Your task to perform on an android device: turn notification dots on Image 0: 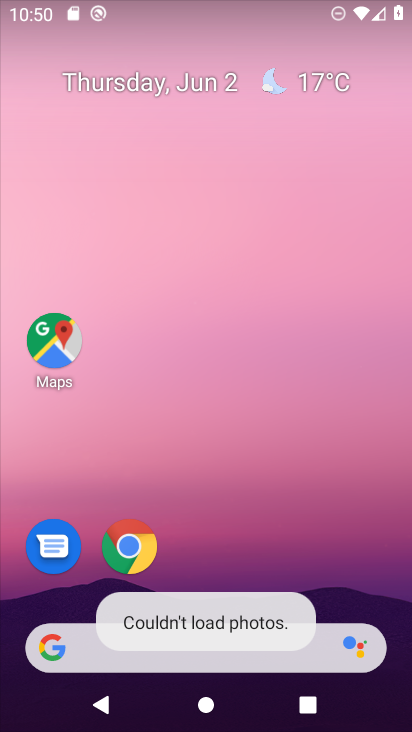
Step 0: drag from (321, 589) to (226, 10)
Your task to perform on an android device: turn notification dots on Image 1: 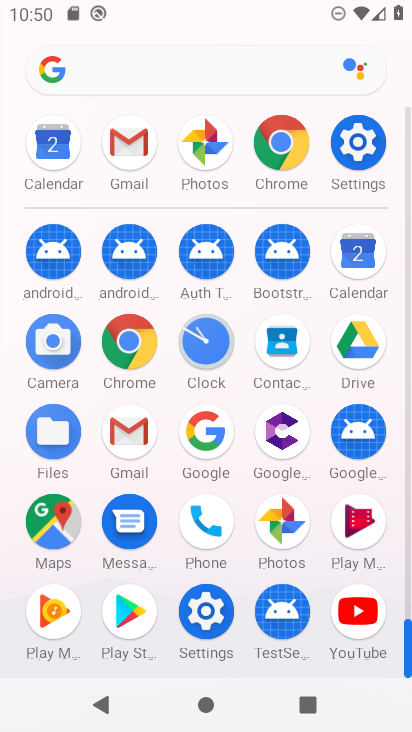
Step 1: drag from (6, 517) to (6, 161)
Your task to perform on an android device: turn notification dots on Image 2: 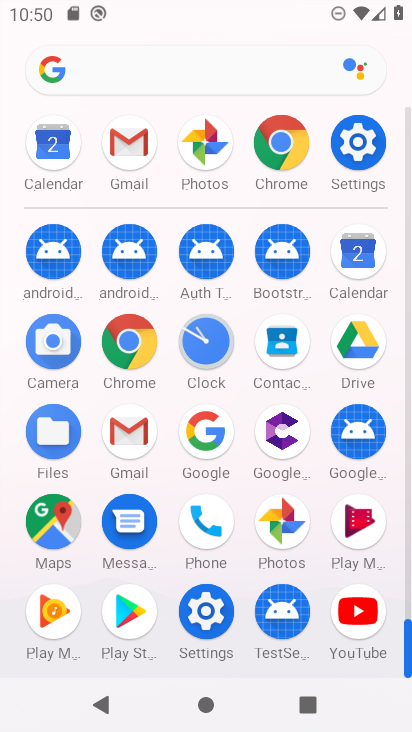
Step 2: click (205, 609)
Your task to perform on an android device: turn notification dots on Image 3: 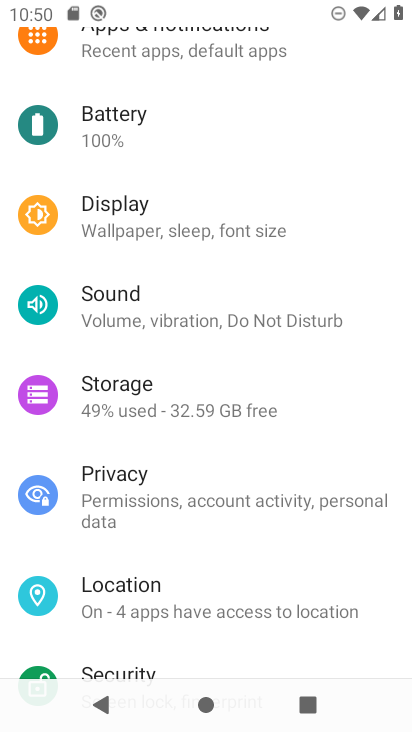
Step 3: drag from (282, 136) to (291, 546)
Your task to perform on an android device: turn notification dots on Image 4: 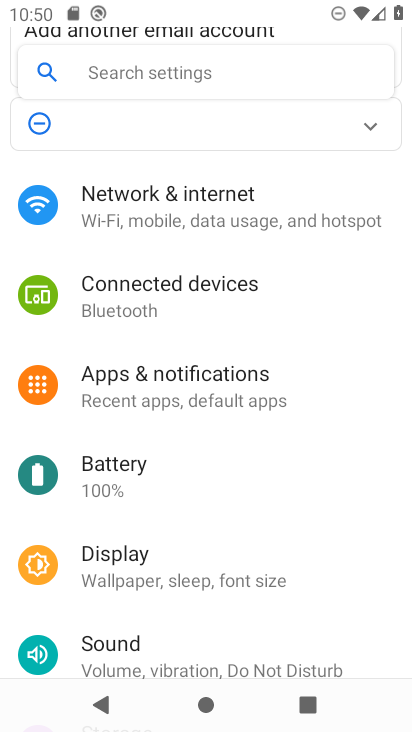
Step 4: click (194, 377)
Your task to perform on an android device: turn notification dots on Image 5: 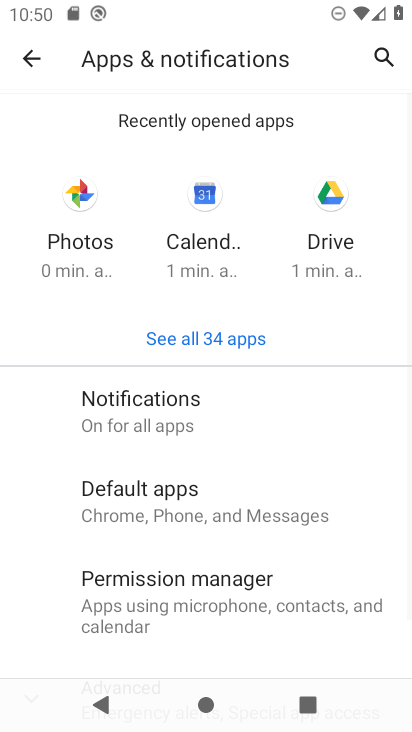
Step 5: drag from (224, 578) to (265, 202)
Your task to perform on an android device: turn notification dots on Image 6: 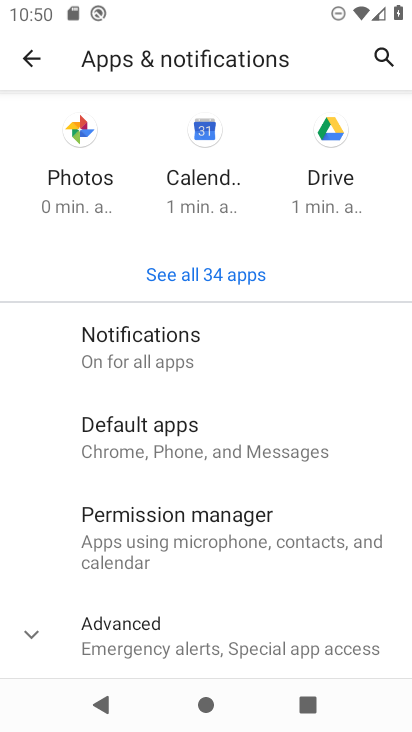
Step 6: click (50, 625)
Your task to perform on an android device: turn notification dots on Image 7: 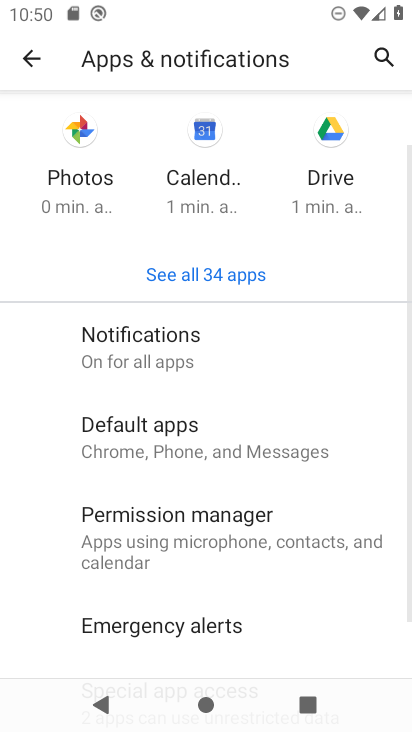
Step 7: click (220, 372)
Your task to perform on an android device: turn notification dots on Image 8: 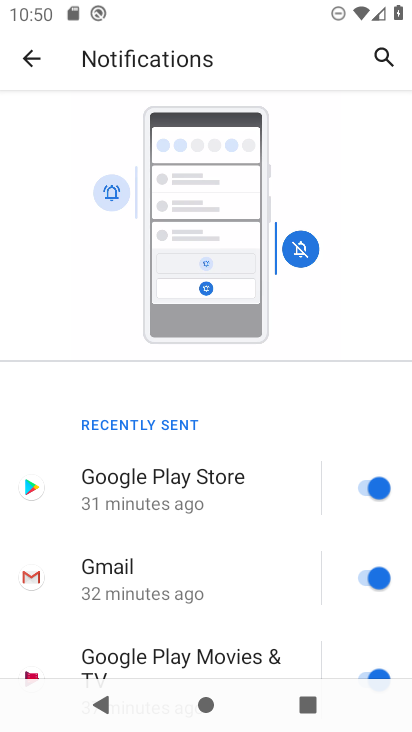
Step 8: drag from (238, 509) to (290, 122)
Your task to perform on an android device: turn notification dots on Image 9: 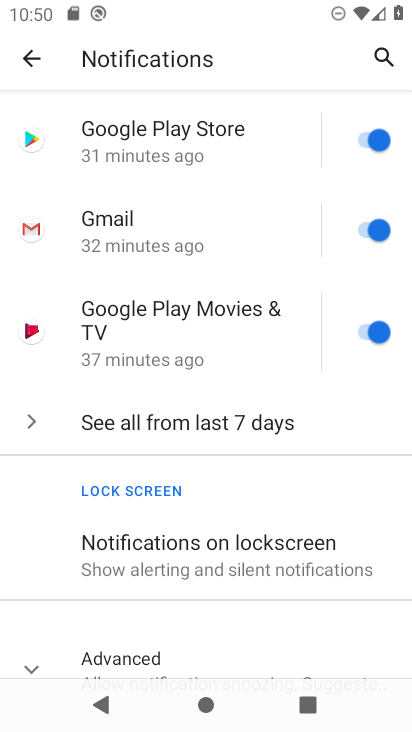
Step 9: drag from (249, 592) to (274, 116)
Your task to perform on an android device: turn notification dots on Image 10: 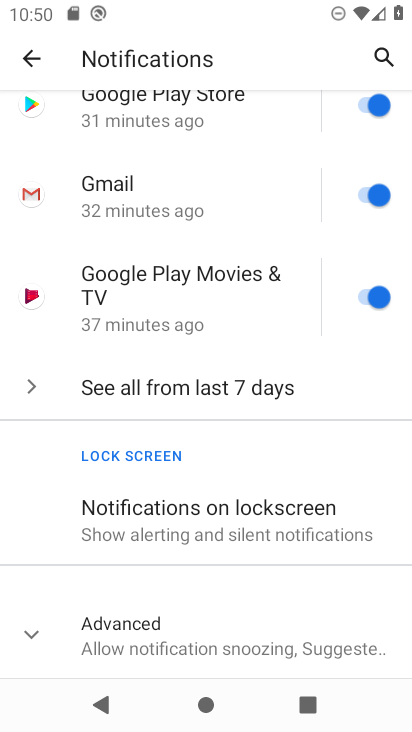
Step 10: click (118, 598)
Your task to perform on an android device: turn notification dots on Image 11: 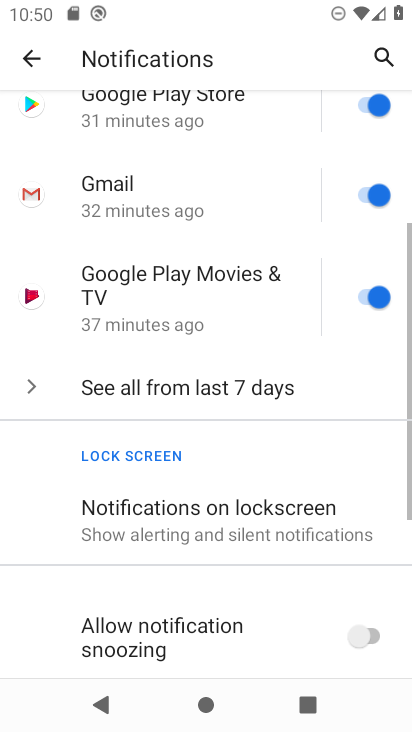
Step 11: task complete